Your task to perform on an android device: set the stopwatch Image 0: 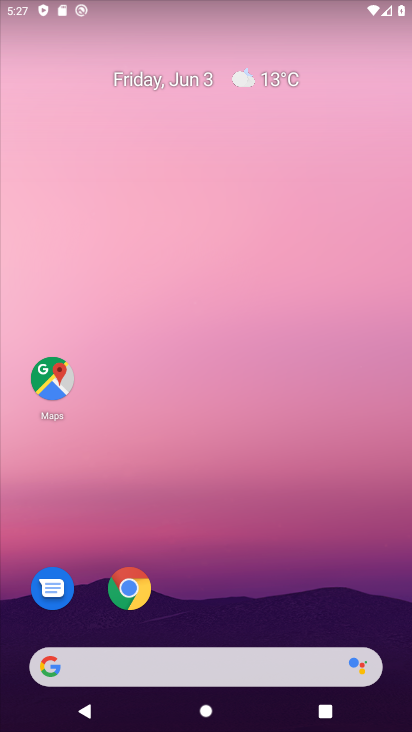
Step 0: drag from (239, 507) to (205, 151)
Your task to perform on an android device: set the stopwatch Image 1: 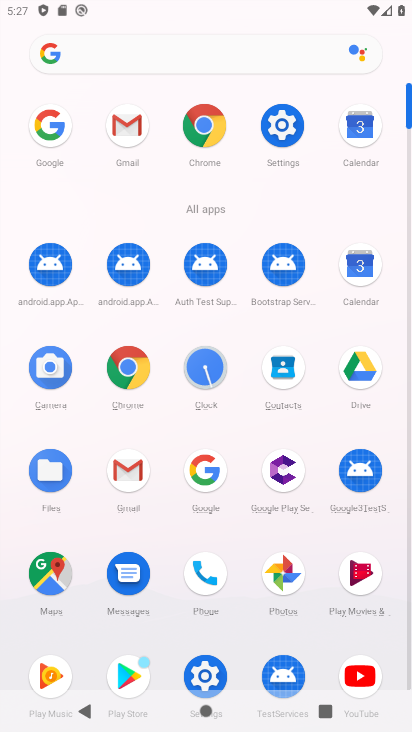
Step 1: click (204, 386)
Your task to perform on an android device: set the stopwatch Image 2: 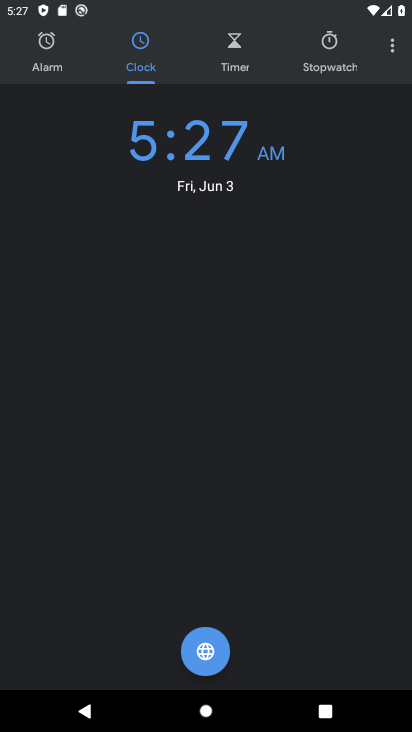
Step 2: click (330, 68)
Your task to perform on an android device: set the stopwatch Image 3: 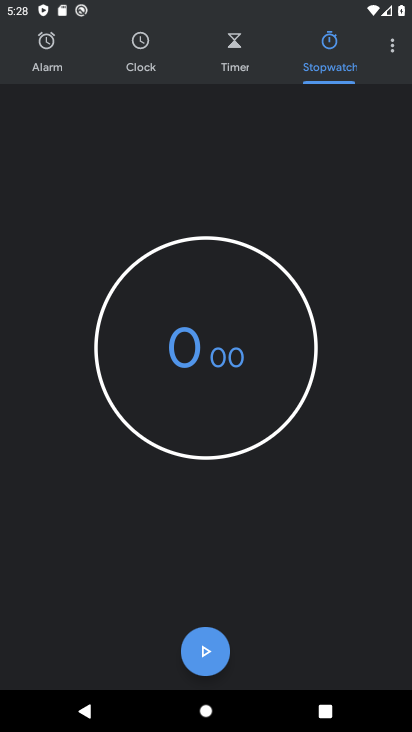
Step 3: click (212, 656)
Your task to perform on an android device: set the stopwatch Image 4: 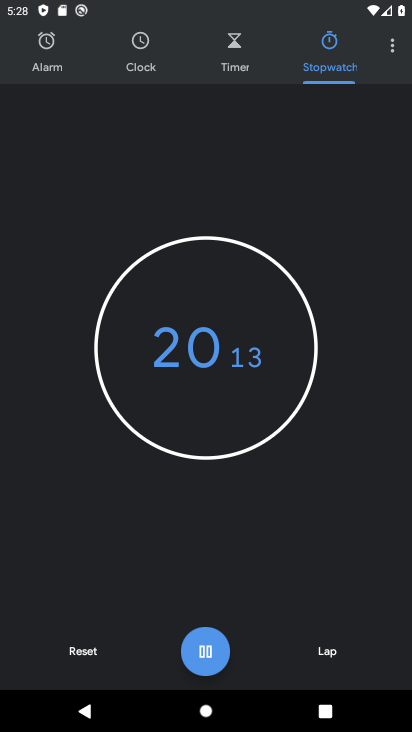
Step 4: task complete